Your task to perform on an android device: change text size in settings app Image 0: 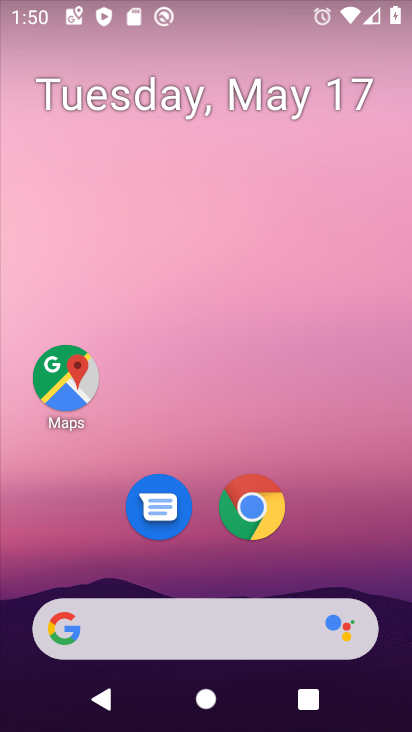
Step 0: drag from (274, 362) to (248, 260)
Your task to perform on an android device: change text size in settings app Image 1: 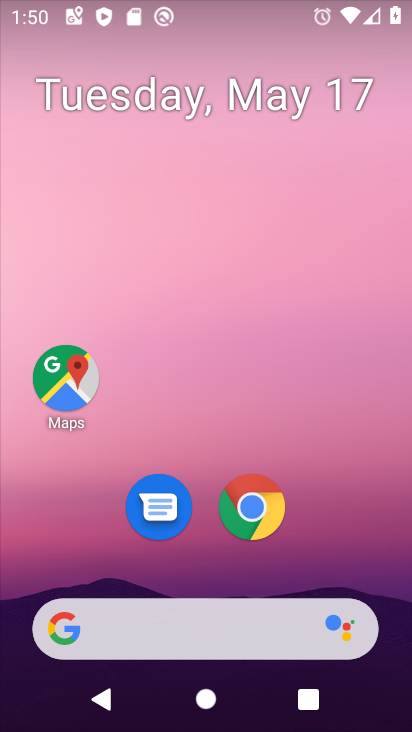
Step 1: drag from (360, 532) to (313, 217)
Your task to perform on an android device: change text size in settings app Image 2: 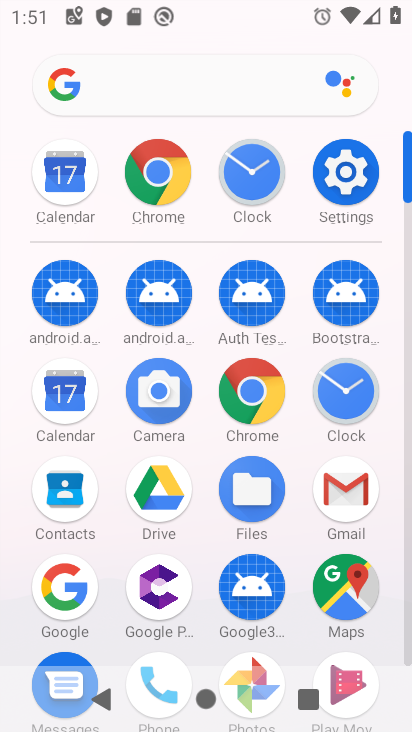
Step 2: click (348, 179)
Your task to perform on an android device: change text size in settings app Image 3: 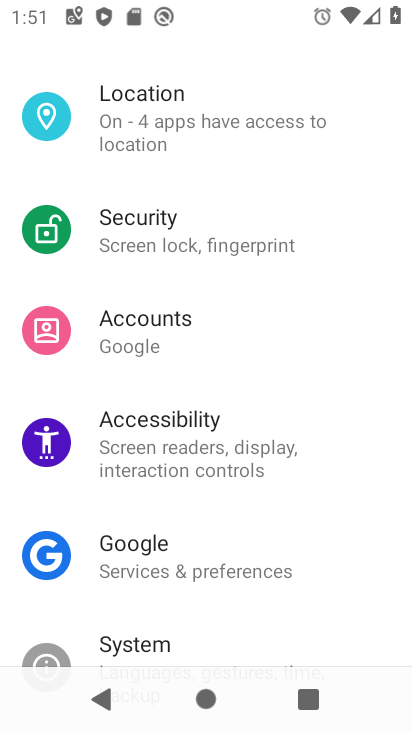
Step 3: drag from (263, 579) to (213, 406)
Your task to perform on an android device: change text size in settings app Image 4: 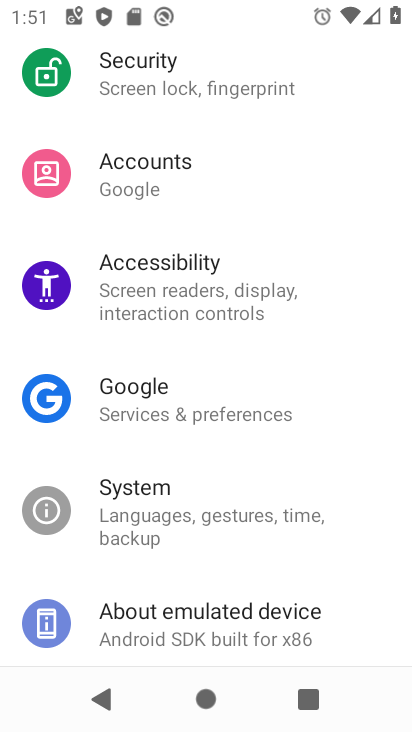
Step 4: drag from (162, 516) to (147, 421)
Your task to perform on an android device: change text size in settings app Image 5: 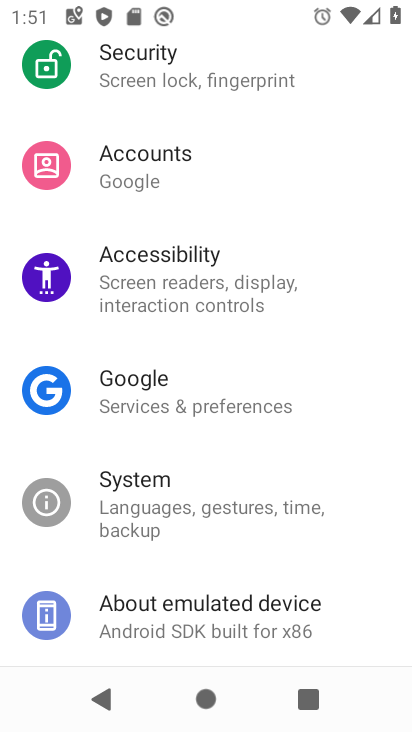
Step 5: click (152, 477)
Your task to perform on an android device: change text size in settings app Image 6: 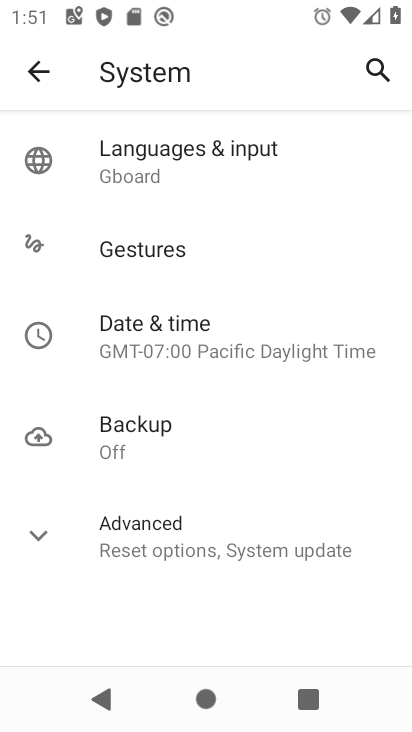
Step 6: click (153, 138)
Your task to perform on an android device: change text size in settings app Image 7: 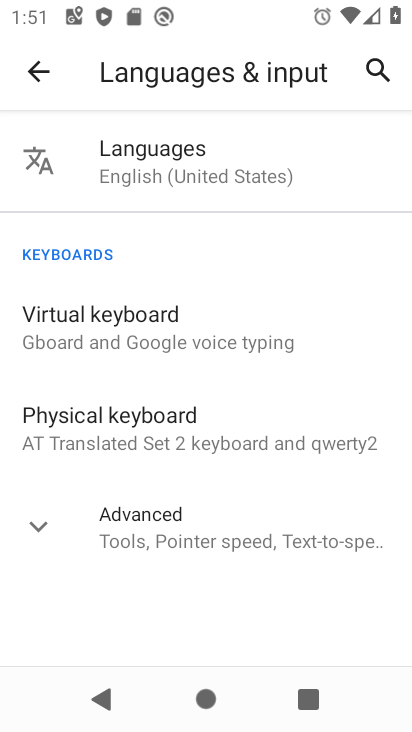
Step 7: click (32, 77)
Your task to perform on an android device: change text size in settings app Image 8: 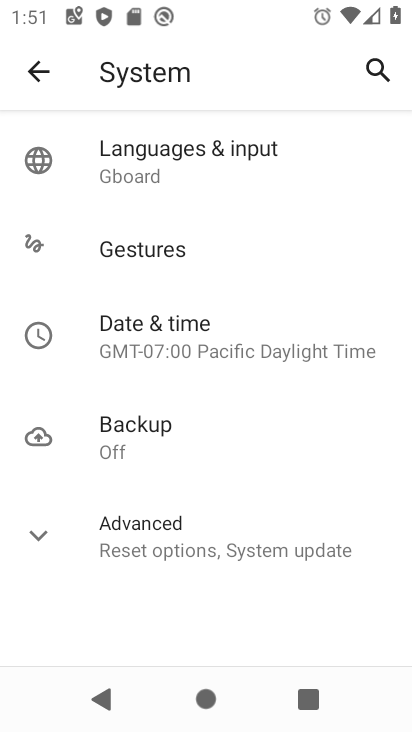
Step 8: press back button
Your task to perform on an android device: change text size in settings app Image 9: 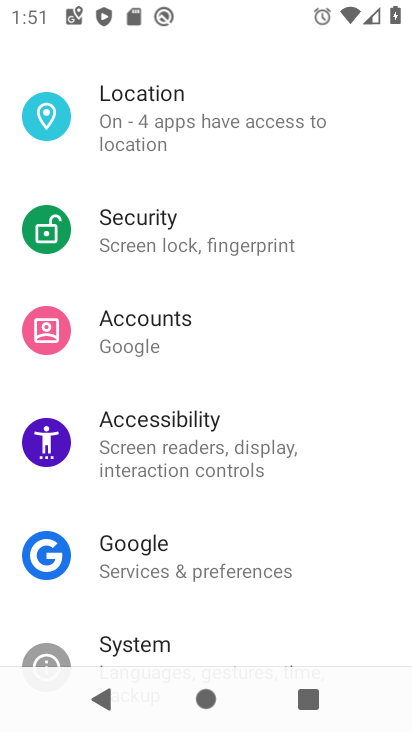
Step 9: drag from (175, 578) to (133, 366)
Your task to perform on an android device: change text size in settings app Image 10: 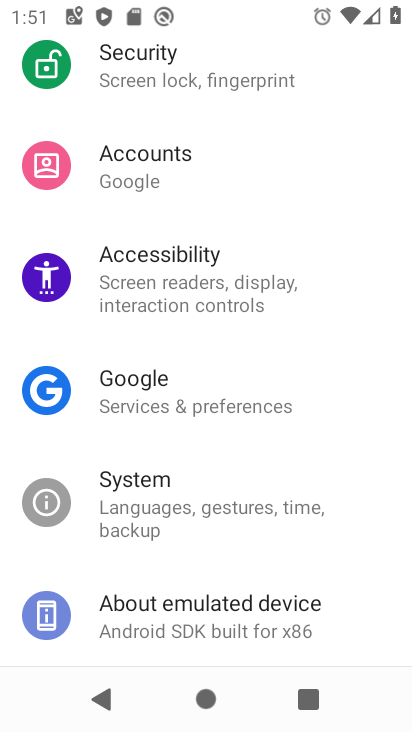
Step 10: click (196, 505)
Your task to perform on an android device: change text size in settings app Image 11: 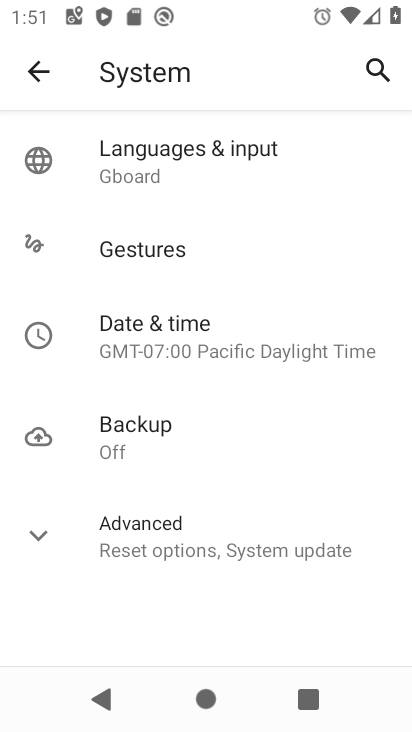
Step 11: click (38, 71)
Your task to perform on an android device: change text size in settings app Image 12: 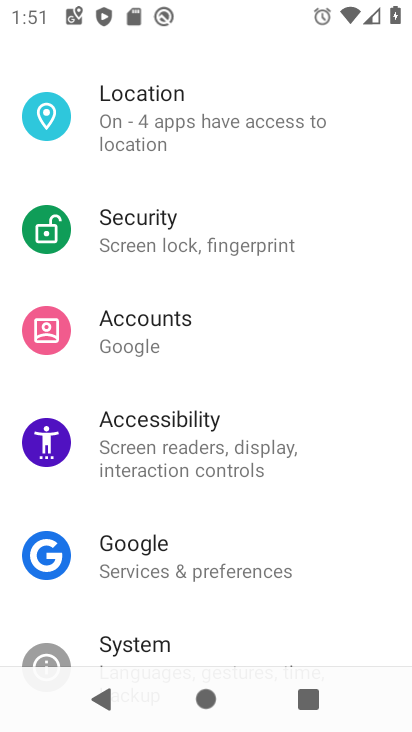
Step 12: drag from (134, 208) to (142, 346)
Your task to perform on an android device: change text size in settings app Image 13: 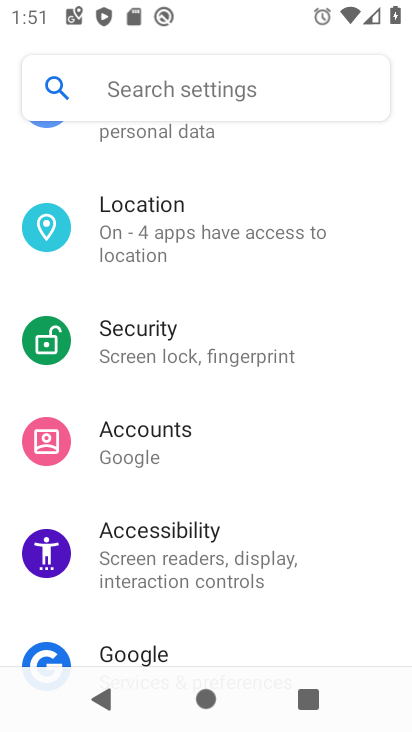
Step 13: click (192, 532)
Your task to perform on an android device: change text size in settings app Image 14: 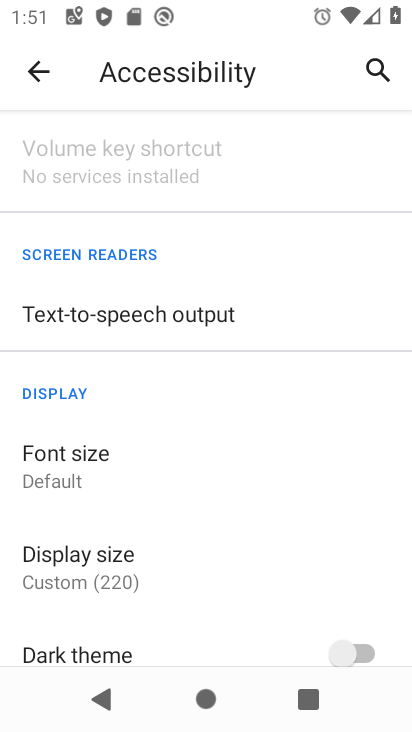
Step 14: click (112, 462)
Your task to perform on an android device: change text size in settings app Image 15: 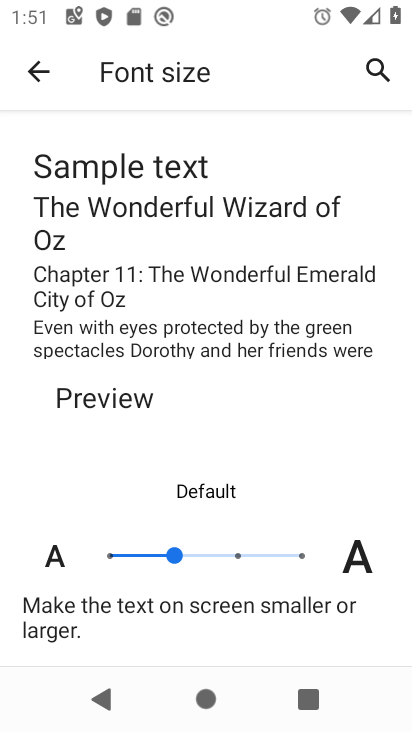
Step 15: click (277, 550)
Your task to perform on an android device: change text size in settings app Image 16: 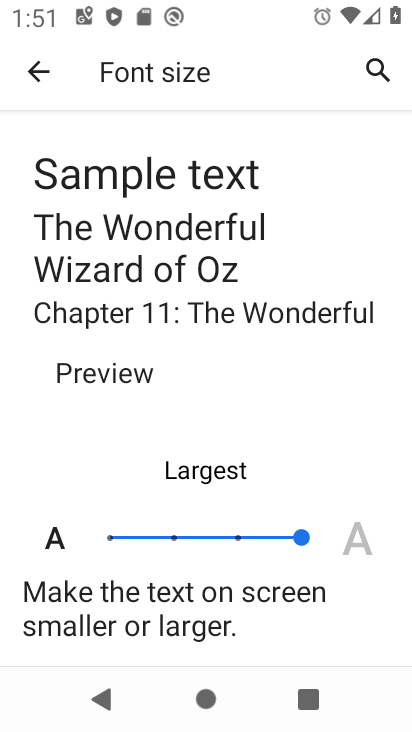
Step 16: task complete